Your task to perform on an android device: Open Google Maps Image 0: 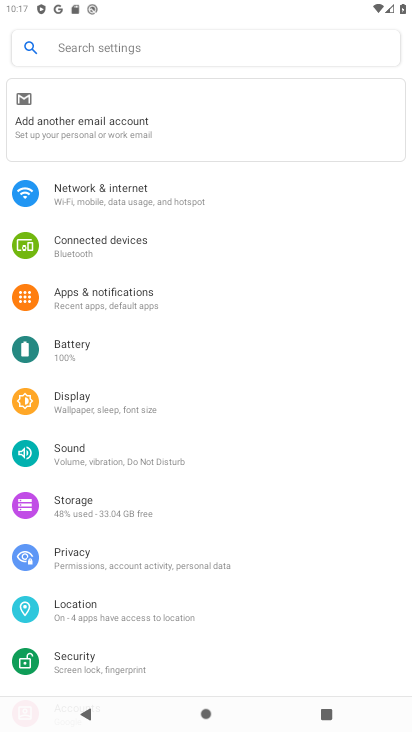
Step 0: press home button
Your task to perform on an android device: Open Google Maps Image 1: 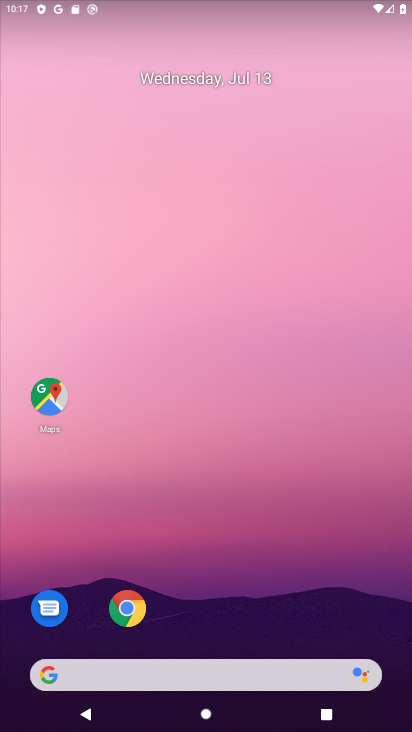
Step 1: click (42, 381)
Your task to perform on an android device: Open Google Maps Image 2: 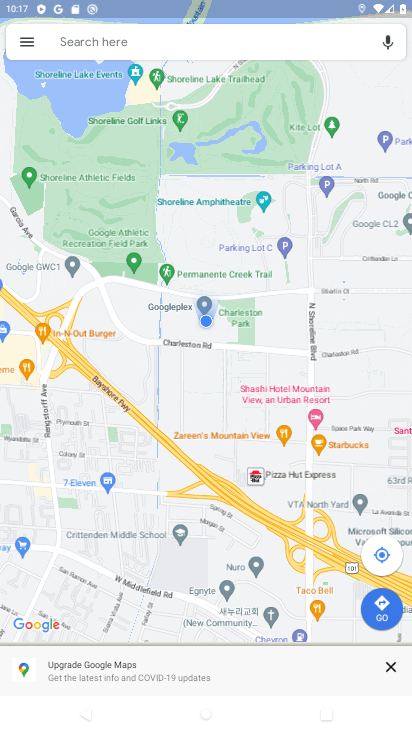
Step 2: task complete